Your task to perform on an android device: empty trash in the gmail app Image 0: 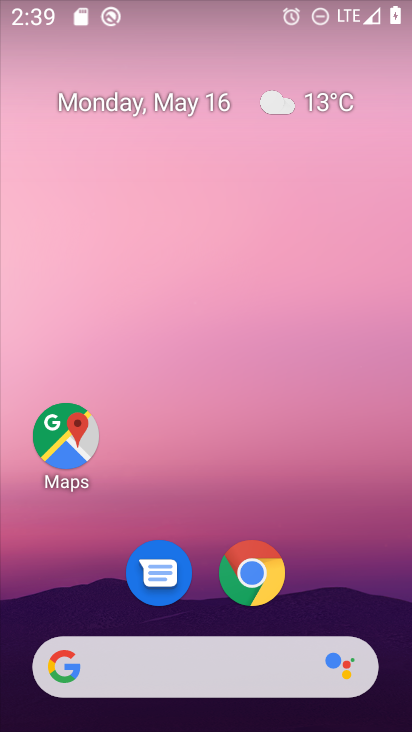
Step 0: drag from (207, 656) to (148, 88)
Your task to perform on an android device: empty trash in the gmail app Image 1: 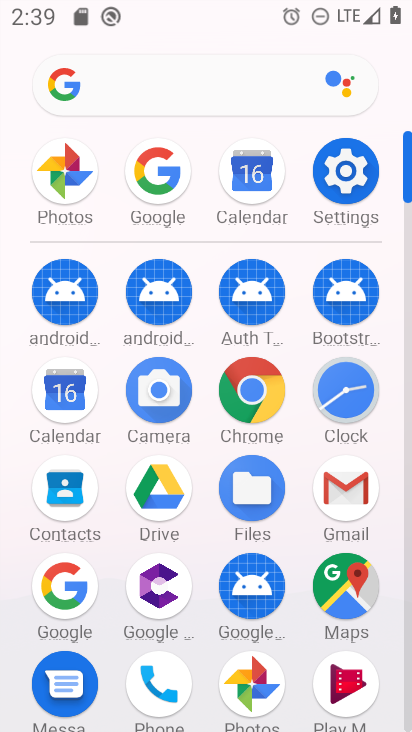
Step 1: click (352, 460)
Your task to perform on an android device: empty trash in the gmail app Image 2: 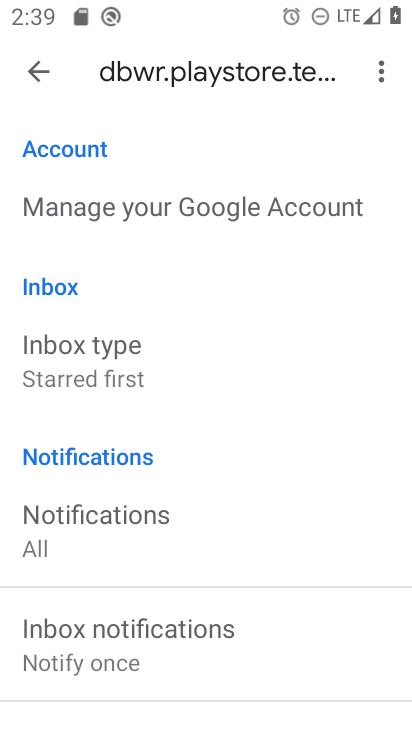
Step 2: click (39, 91)
Your task to perform on an android device: empty trash in the gmail app Image 3: 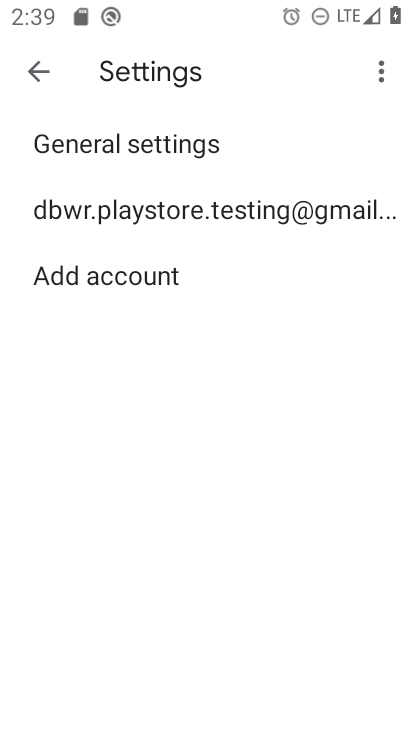
Step 3: click (39, 91)
Your task to perform on an android device: empty trash in the gmail app Image 4: 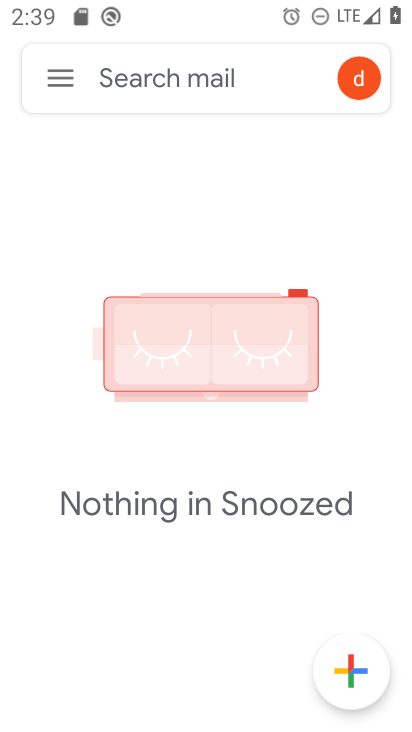
Step 4: click (54, 94)
Your task to perform on an android device: empty trash in the gmail app Image 5: 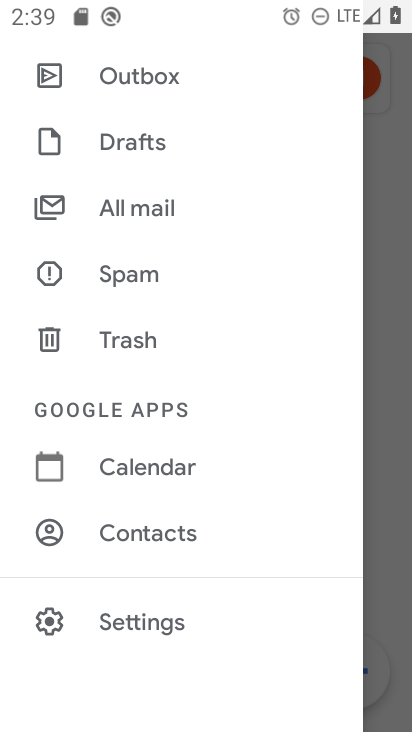
Step 5: click (116, 334)
Your task to perform on an android device: empty trash in the gmail app Image 6: 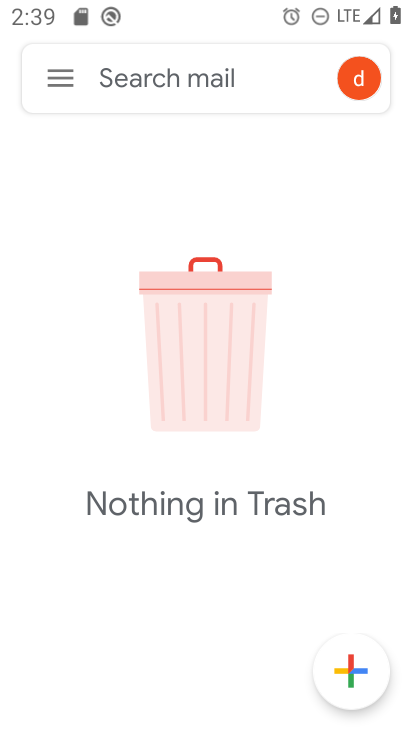
Step 6: task complete